Your task to perform on an android device: Open network settings Image 0: 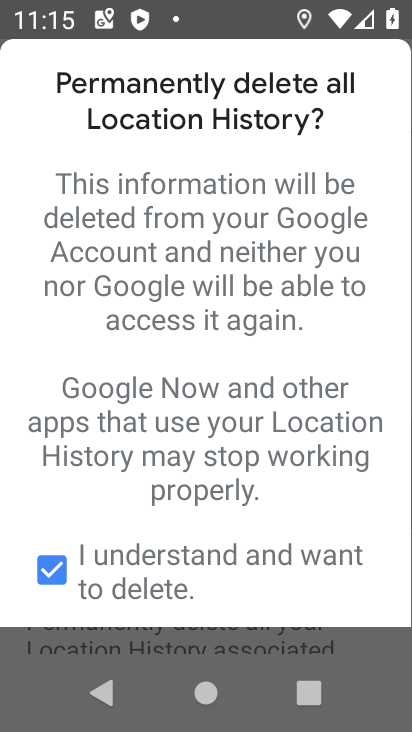
Step 0: press home button
Your task to perform on an android device: Open network settings Image 1: 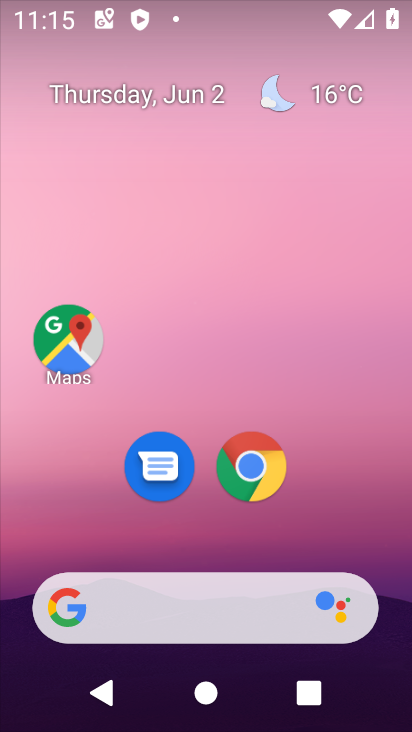
Step 1: drag from (227, 518) to (227, 197)
Your task to perform on an android device: Open network settings Image 2: 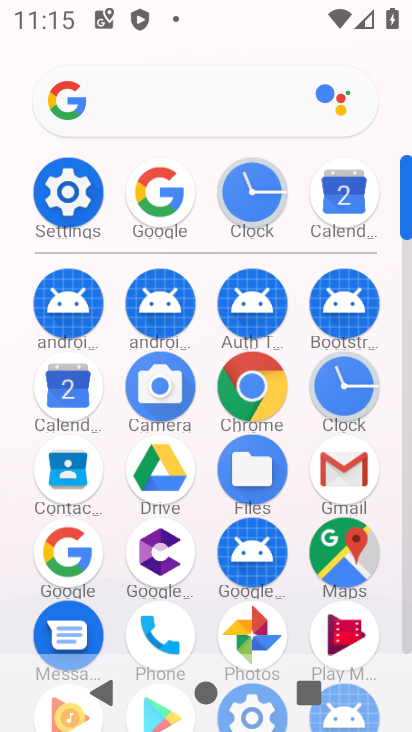
Step 2: click (81, 206)
Your task to perform on an android device: Open network settings Image 3: 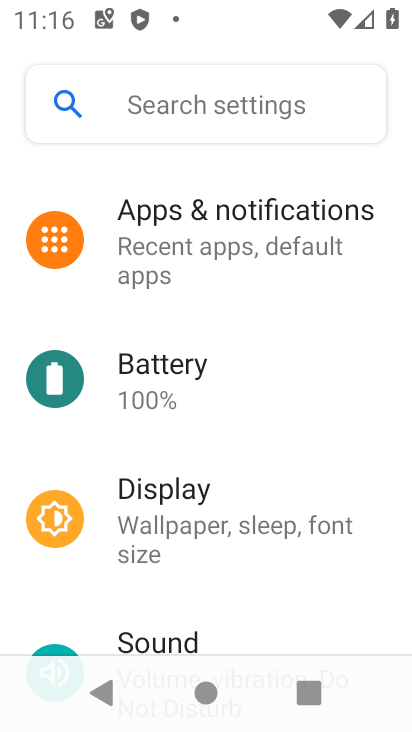
Step 3: drag from (191, 266) to (191, 558)
Your task to perform on an android device: Open network settings Image 4: 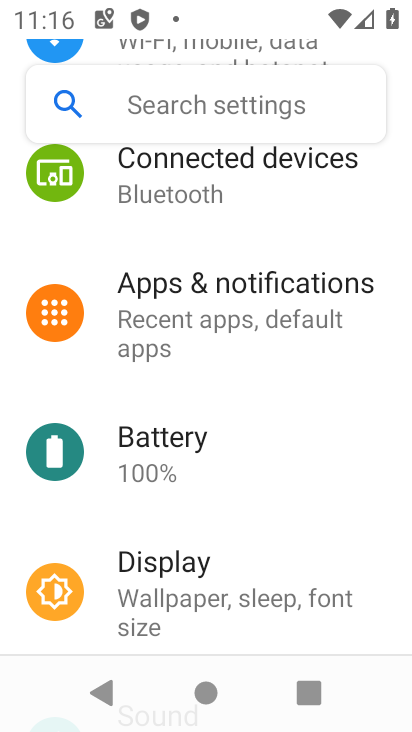
Step 4: drag from (188, 198) to (206, 574)
Your task to perform on an android device: Open network settings Image 5: 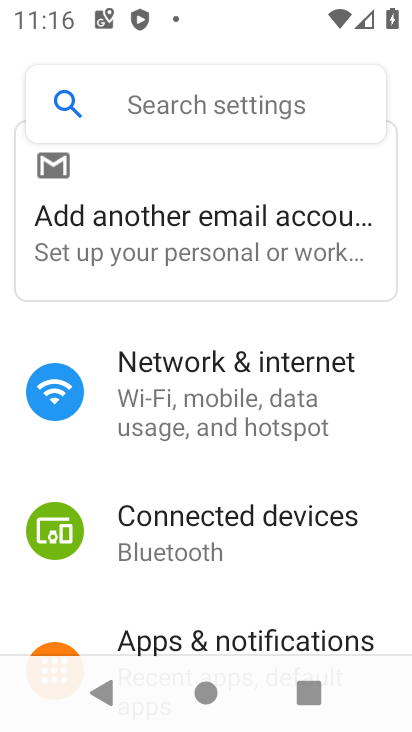
Step 5: click (216, 367)
Your task to perform on an android device: Open network settings Image 6: 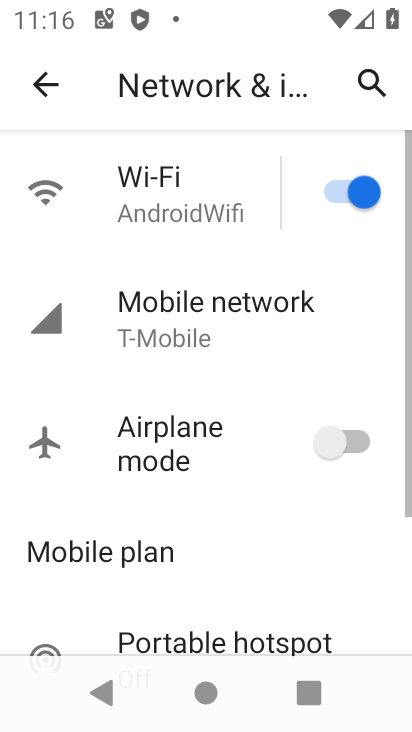
Step 6: click (219, 329)
Your task to perform on an android device: Open network settings Image 7: 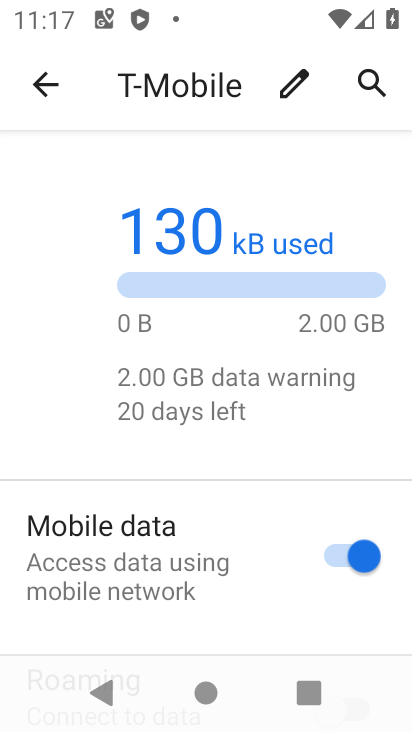
Step 7: task complete